Your task to perform on an android device: turn smart compose on in the gmail app Image 0: 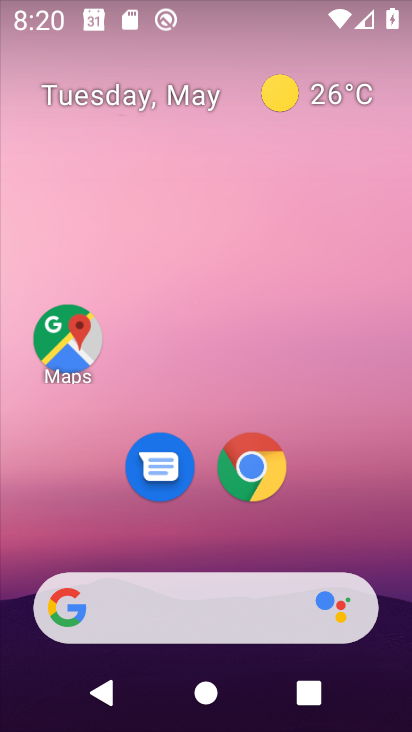
Step 0: drag from (380, 677) to (344, 199)
Your task to perform on an android device: turn smart compose on in the gmail app Image 1: 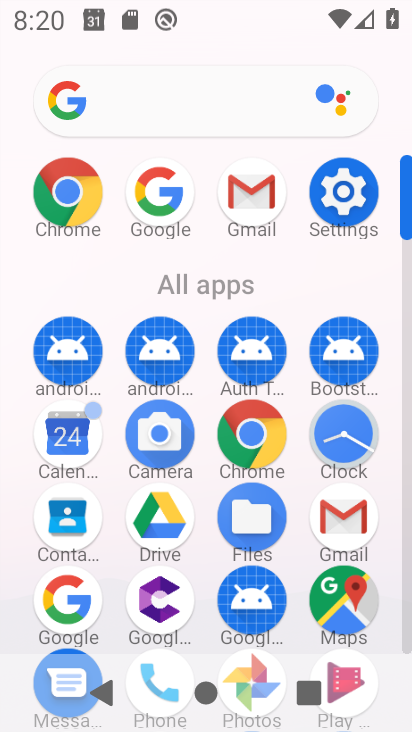
Step 1: click (344, 521)
Your task to perform on an android device: turn smart compose on in the gmail app Image 2: 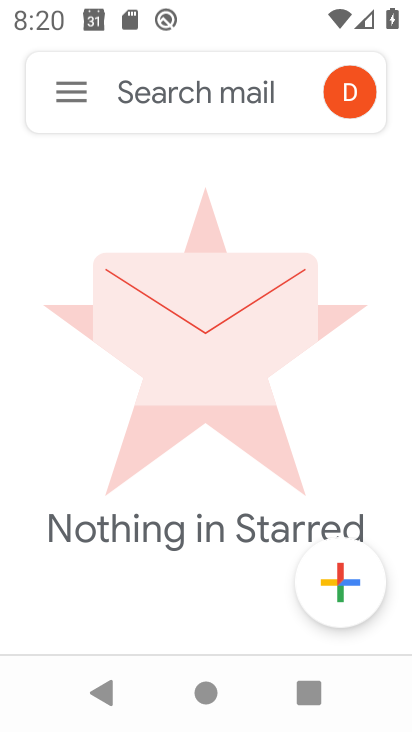
Step 2: click (78, 90)
Your task to perform on an android device: turn smart compose on in the gmail app Image 3: 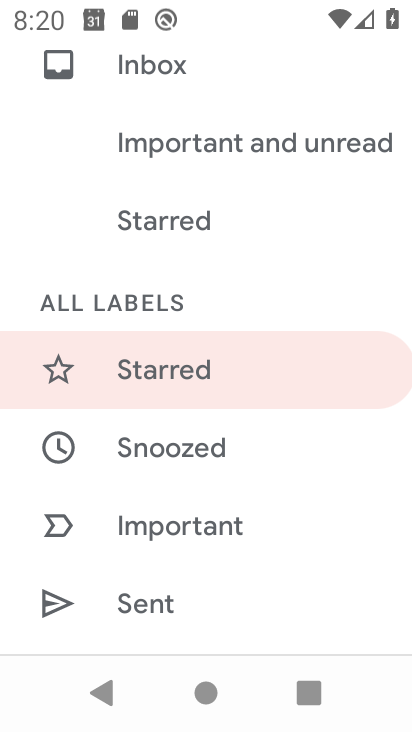
Step 3: drag from (327, 371) to (310, 189)
Your task to perform on an android device: turn smart compose on in the gmail app Image 4: 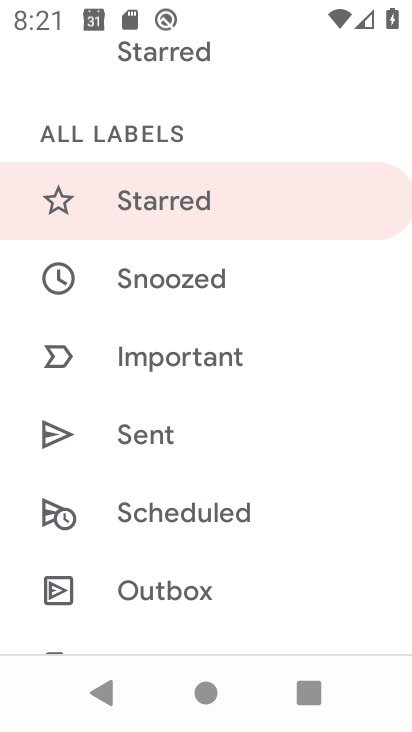
Step 4: drag from (327, 637) to (277, 107)
Your task to perform on an android device: turn smart compose on in the gmail app Image 5: 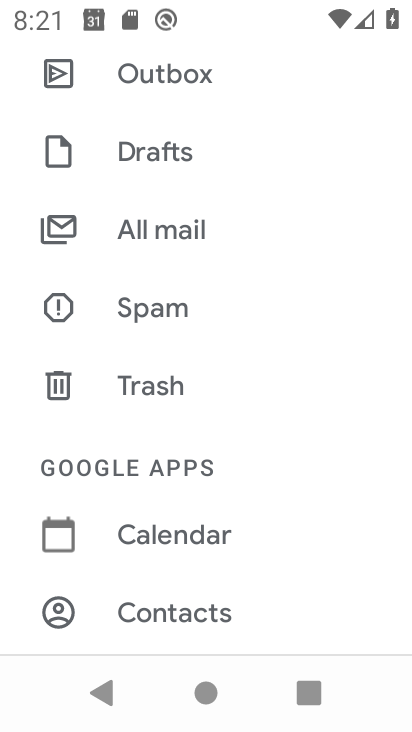
Step 5: drag from (351, 636) to (336, 273)
Your task to perform on an android device: turn smart compose on in the gmail app Image 6: 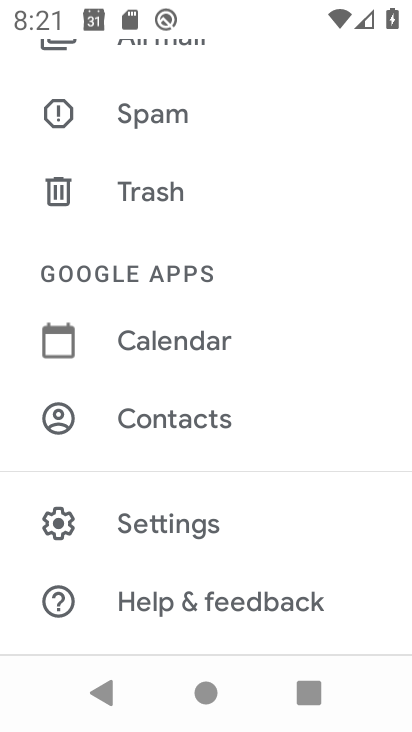
Step 6: click (194, 520)
Your task to perform on an android device: turn smart compose on in the gmail app Image 7: 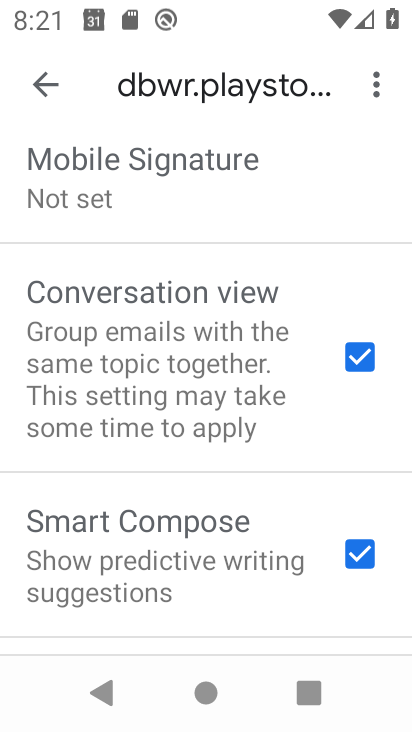
Step 7: task complete